Your task to perform on an android device: uninstall "Microsoft Excel" Image 0: 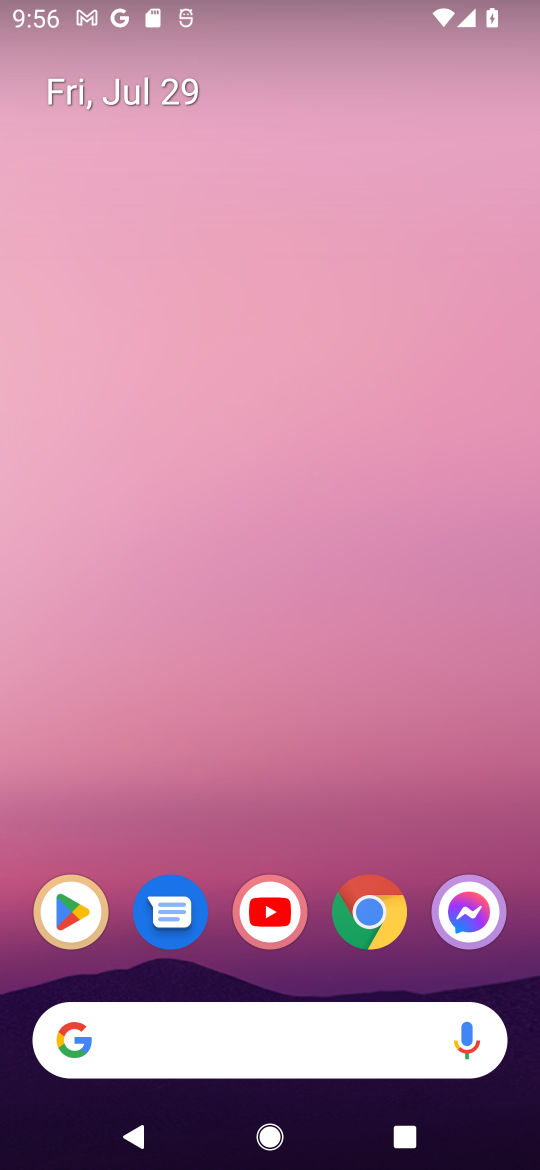
Step 0: drag from (275, 888) to (277, 298)
Your task to perform on an android device: uninstall "Microsoft Excel" Image 1: 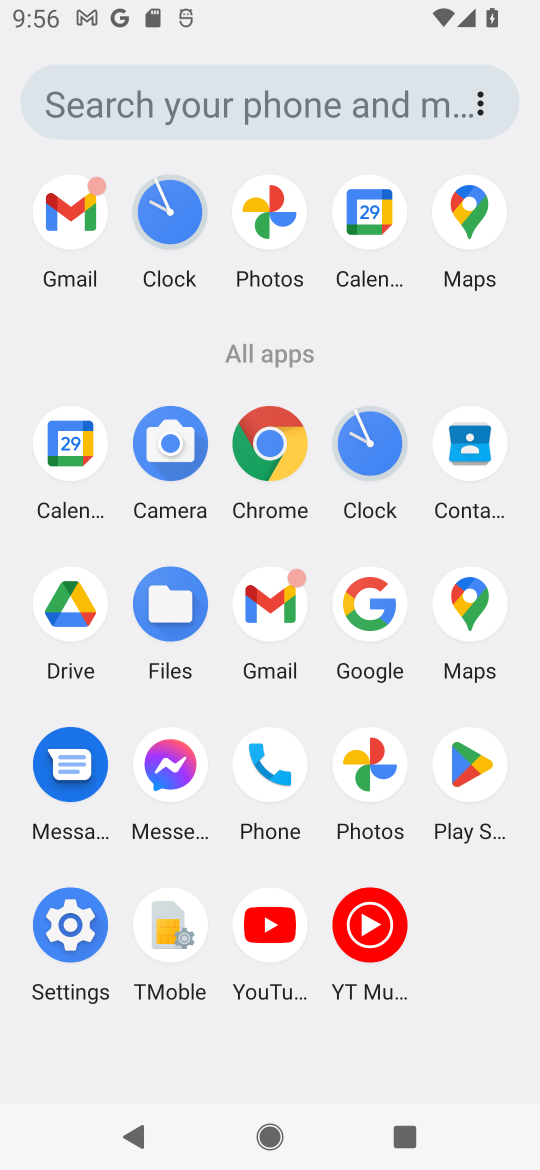
Step 1: click (464, 768)
Your task to perform on an android device: uninstall "Microsoft Excel" Image 2: 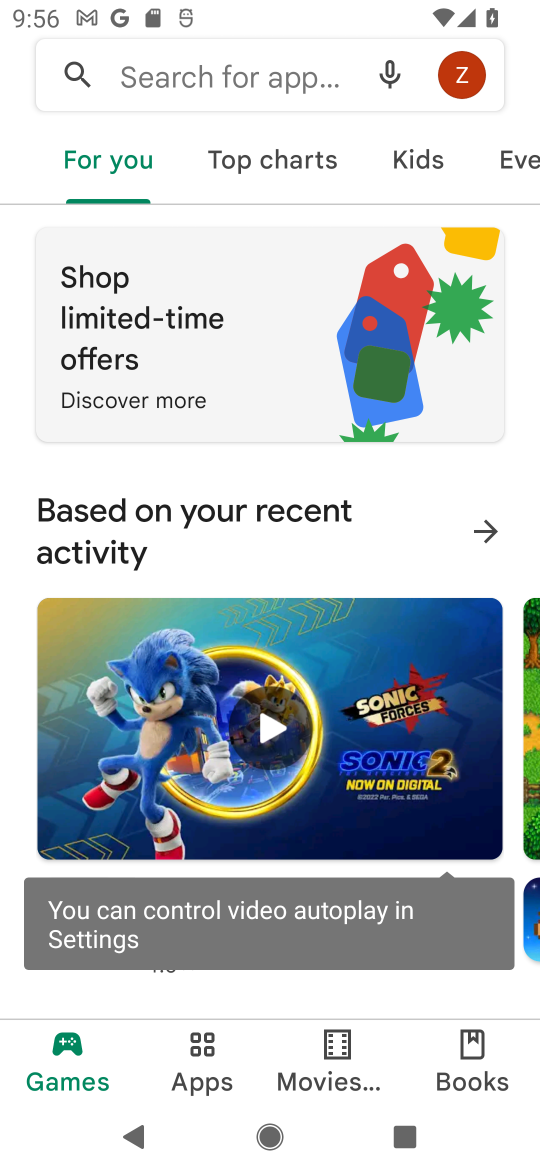
Step 2: click (221, 70)
Your task to perform on an android device: uninstall "Microsoft Excel" Image 3: 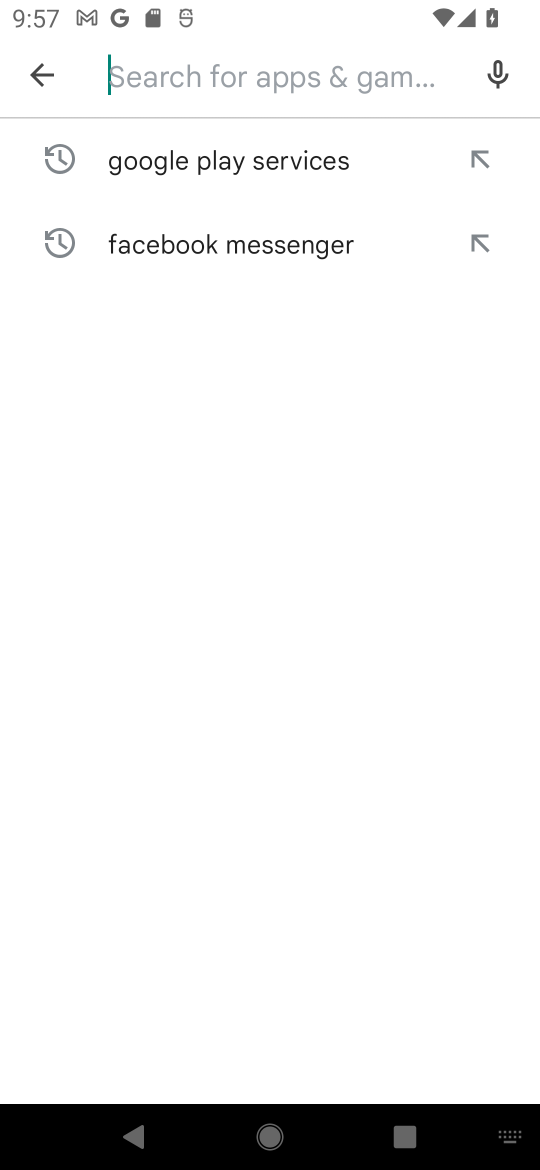
Step 3: type "Microsoft Excel"
Your task to perform on an android device: uninstall "Microsoft Excel" Image 4: 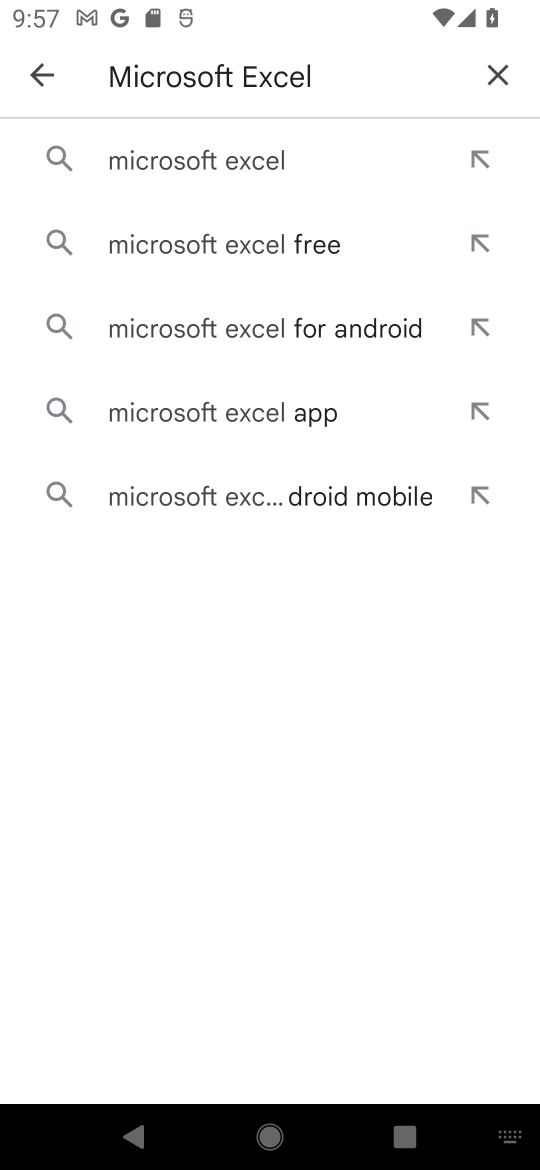
Step 4: click (197, 156)
Your task to perform on an android device: uninstall "Microsoft Excel" Image 5: 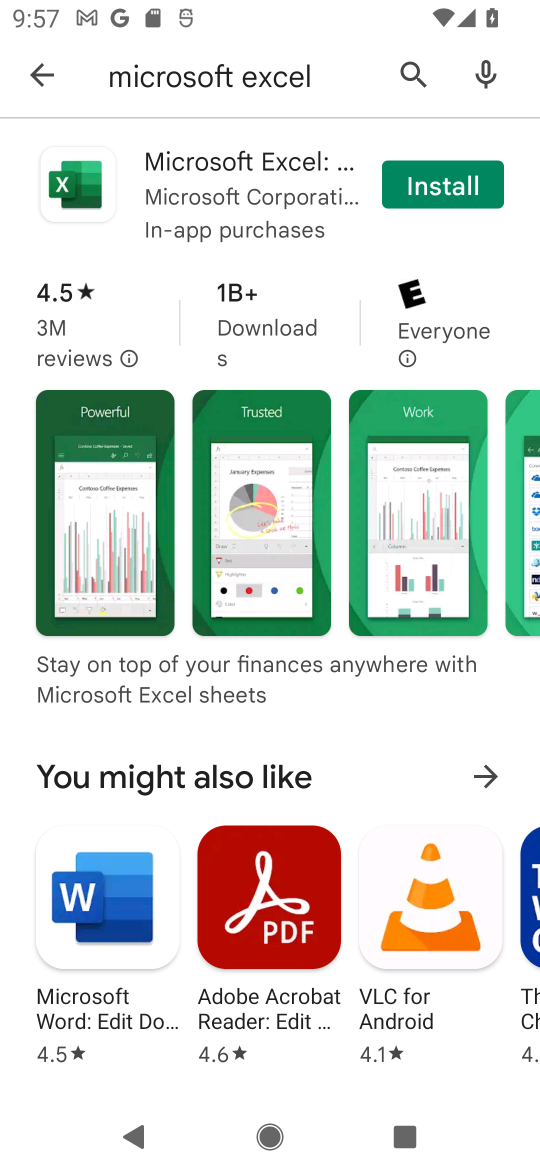
Step 5: task complete